Your task to perform on an android device: open app "Microsoft Authenticator" Image 0: 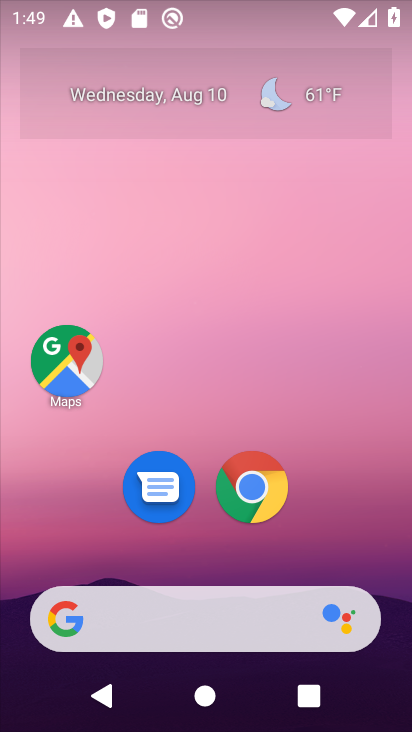
Step 0: drag from (123, 551) to (103, 155)
Your task to perform on an android device: open app "Microsoft Authenticator" Image 1: 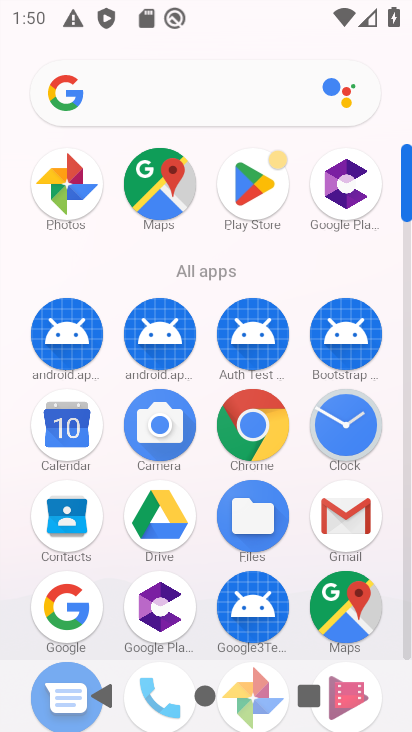
Step 1: click (266, 193)
Your task to perform on an android device: open app "Microsoft Authenticator" Image 2: 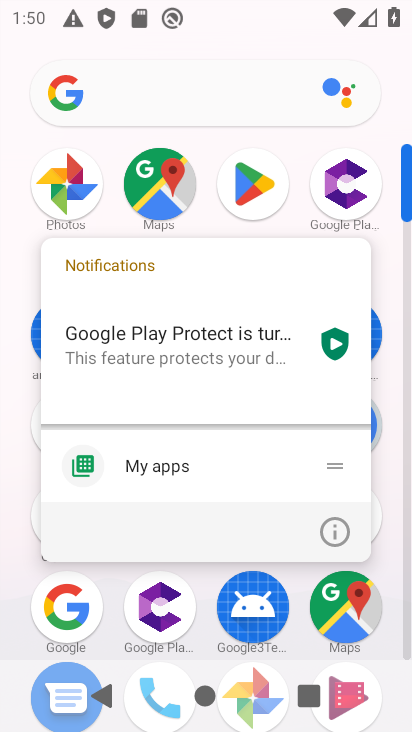
Step 2: click (268, 199)
Your task to perform on an android device: open app "Microsoft Authenticator" Image 3: 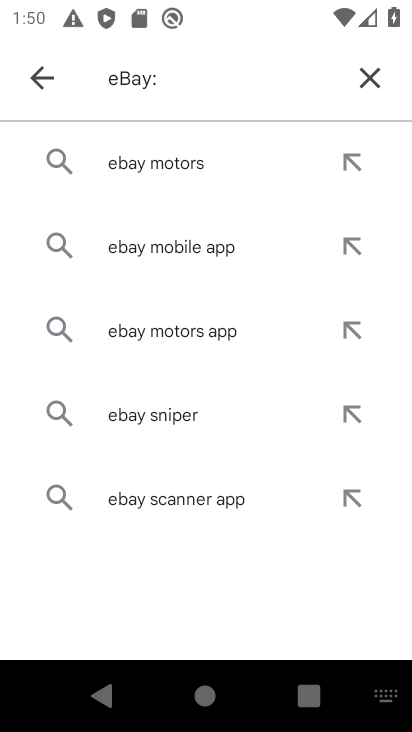
Step 3: click (366, 94)
Your task to perform on an android device: open app "Microsoft Authenticator" Image 4: 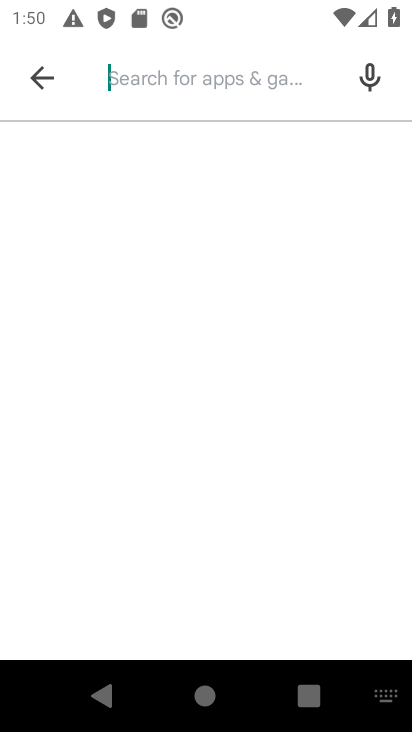
Step 4: type "Microsoft Authenticator"
Your task to perform on an android device: open app "Microsoft Authenticator" Image 5: 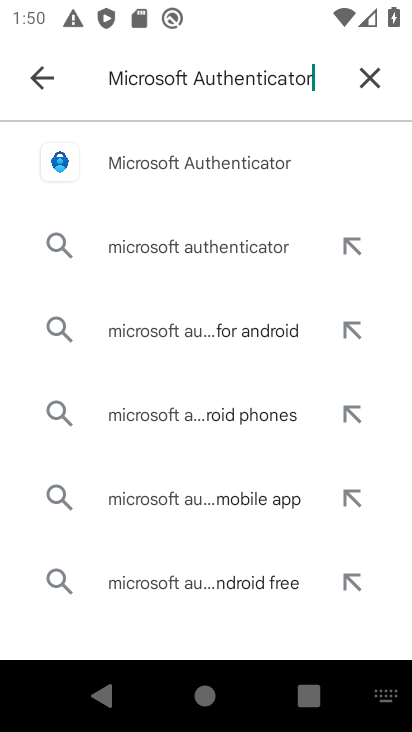
Step 5: click (167, 166)
Your task to perform on an android device: open app "Microsoft Authenticator" Image 6: 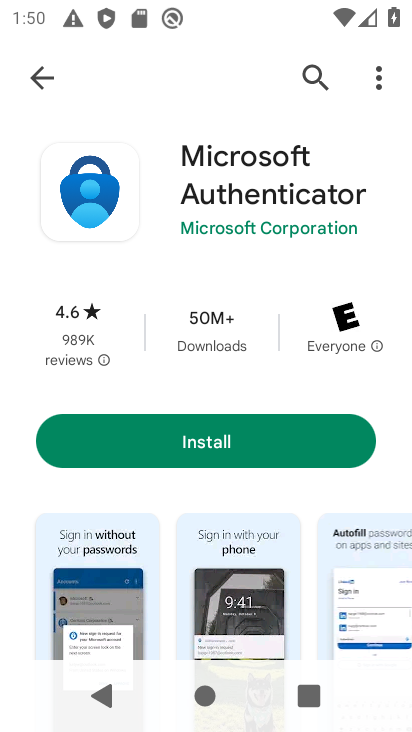
Step 6: click (200, 449)
Your task to perform on an android device: open app "Microsoft Authenticator" Image 7: 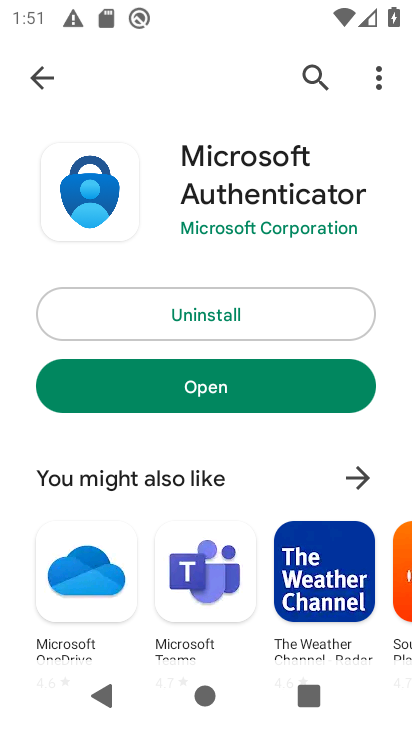
Step 7: click (63, 445)
Your task to perform on an android device: open app "Microsoft Authenticator" Image 8: 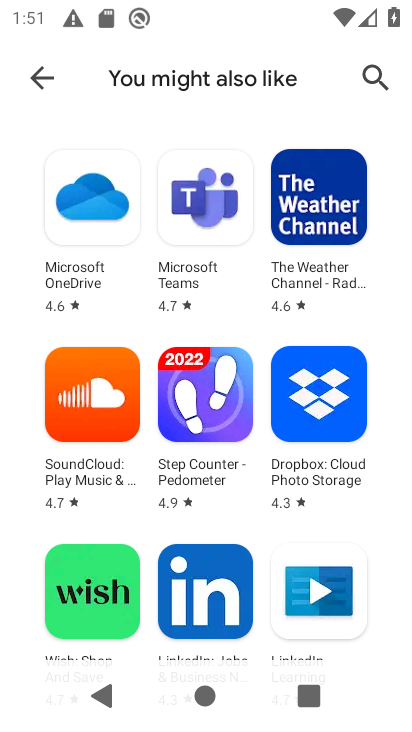
Step 8: task complete